Your task to perform on an android device: refresh tabs in the chrome app Image 0: 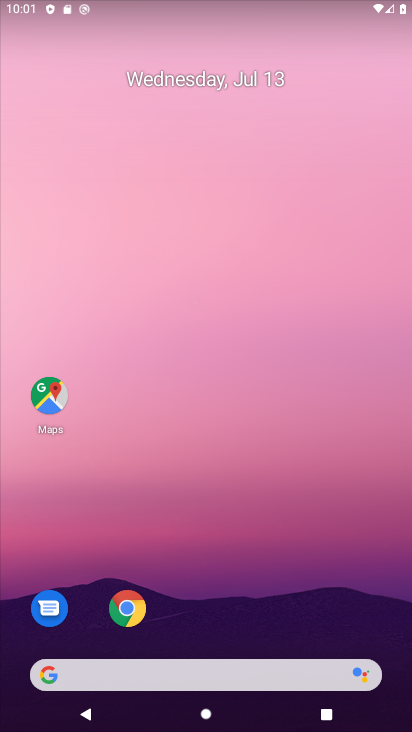
Step 0: click (128, 609)
Your task to perform on an android device: refresh tabs in the chrome app Image 1: 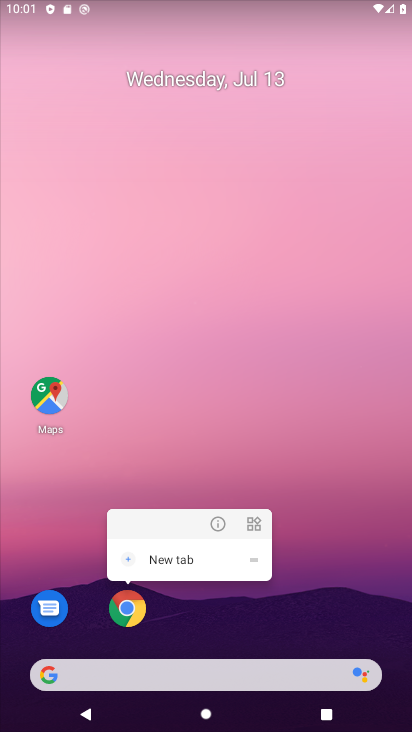
Step 1: click (128, 609)
Your task to perform on an android device: refresh tabs in the chrome app Image 2: 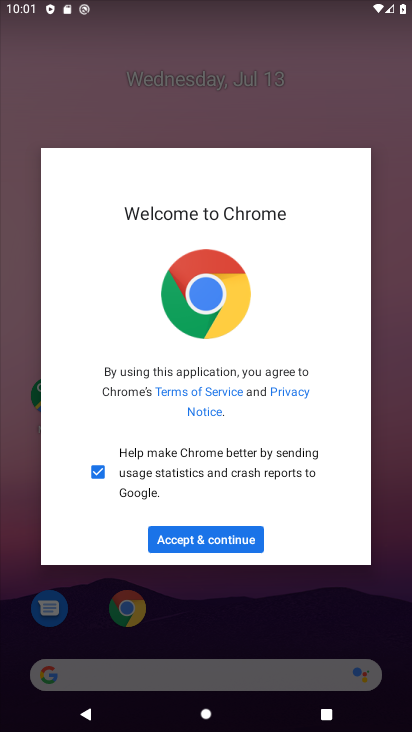
Step 2: click (222, 545)
Your task to perform on an android device: refresh tabs in the chrome app Image 3: 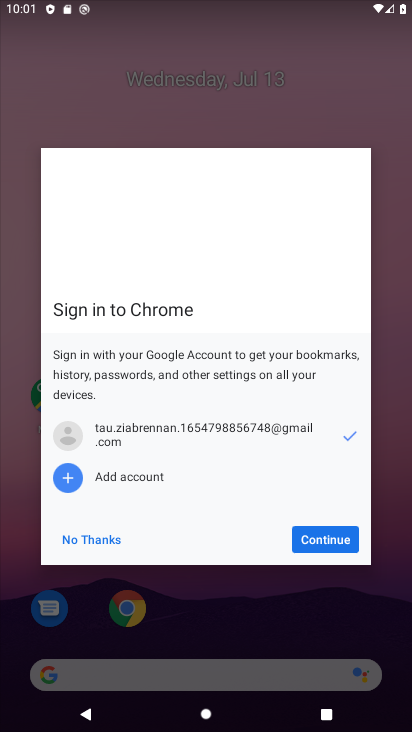
Step 3: click (326, 534)
Your task to perform on an android device: refresh tabs in the chrome app Image 4: 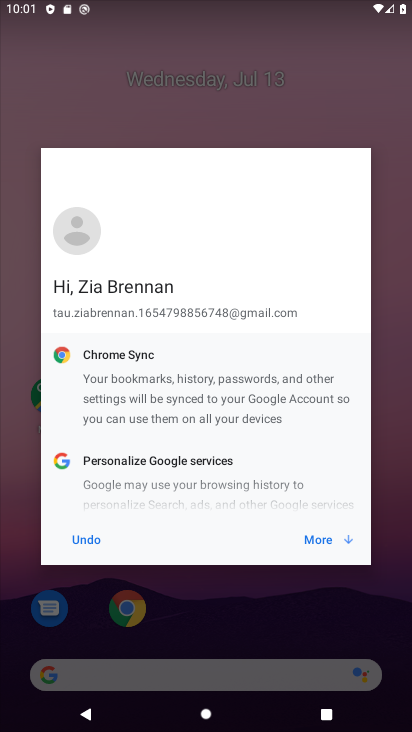
Step 4: click (326, 534)
Your task to perform on an android device: refresh tabs in the chrome app Image 5: 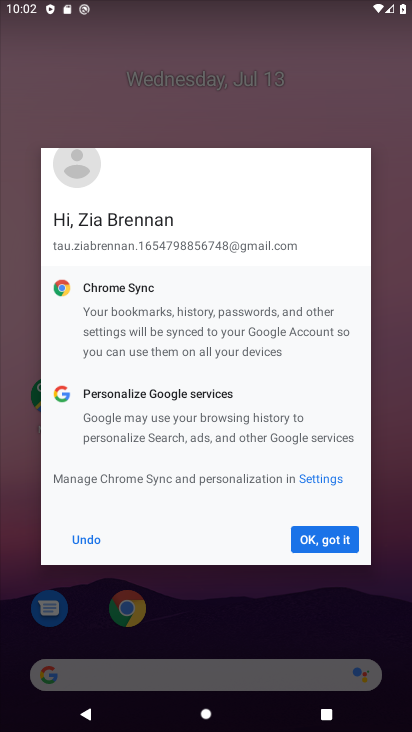
Step 5: click (340, 539)
Your task to perform on an android device: refresh tabs in the chrome app Image 6: 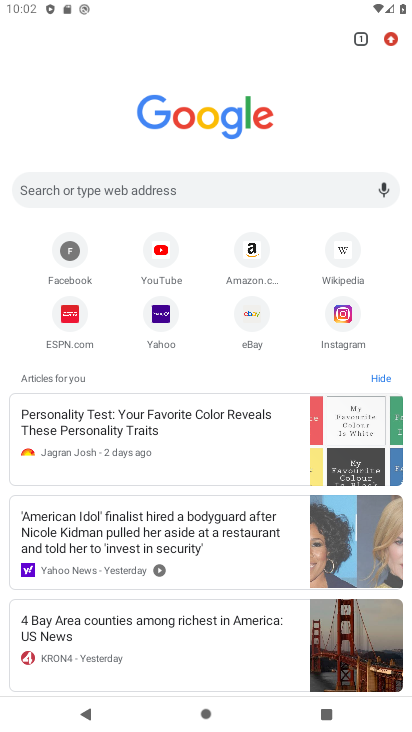
Step 6: click (394, 35)
Your task to perform on an android device: refresh tabs in the chrome app Image 7: 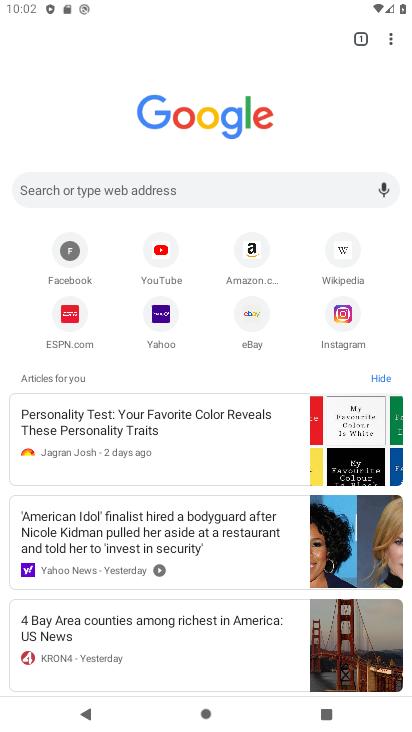
Step 7: task complete